Your task to perform on an android device: add a contact Image 0: 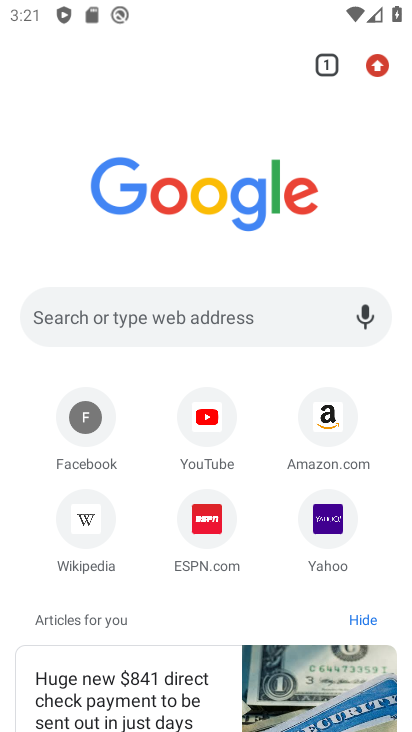
Step 0: press home button
Your task to perform on an android device: add a contact Image 1: 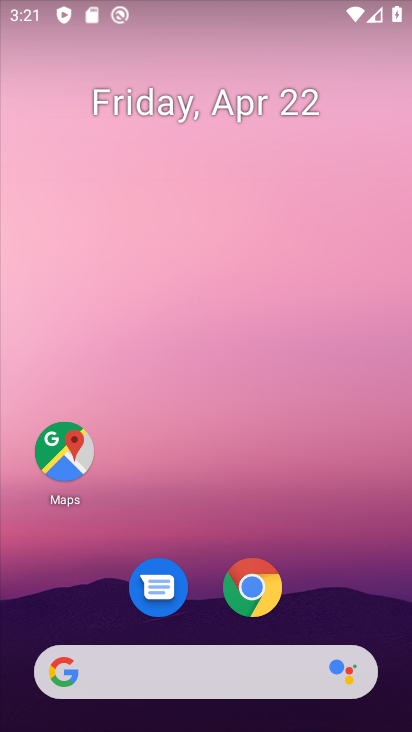
Step 1: drag from (344, 610) to (361, 23)
Your task to perform on an android device: add a contact Image 2: 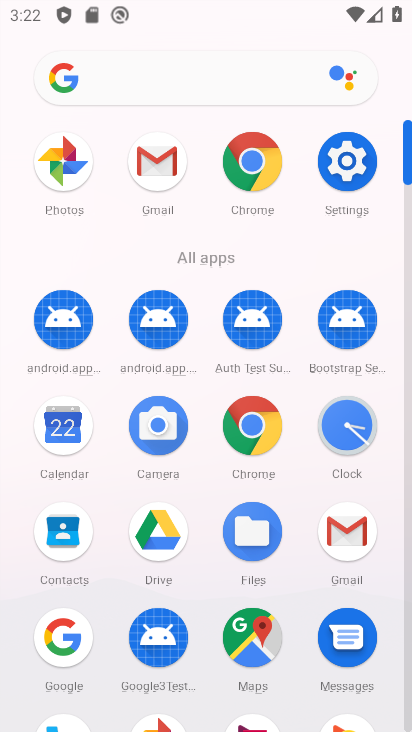
Step 2: click (60, 526)
Your task to perform on an android device: add a contact Image 3: 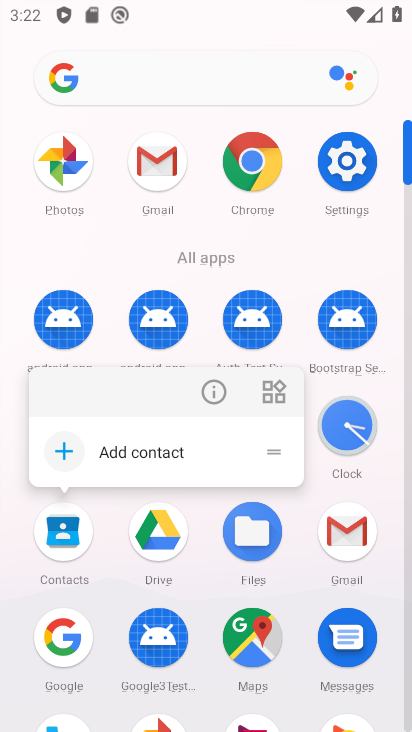
Step 3: click (72, 539)
Your task to perform on an android device: add a contact Image 4: 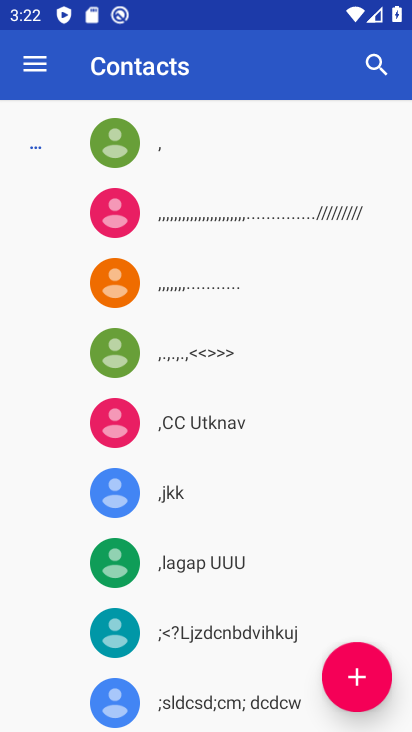
Step 4: click (354, 683)
Your task to perform on an android device: add a contact Image 5: 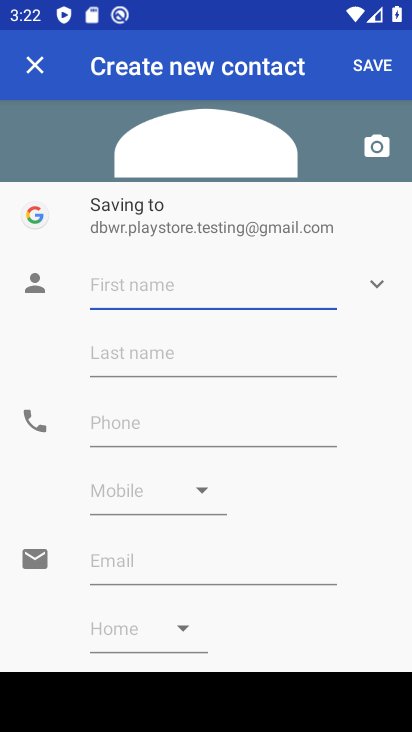
Step 5: click (130, 295)
Your task to perform on an android device: add a contact Image 6: 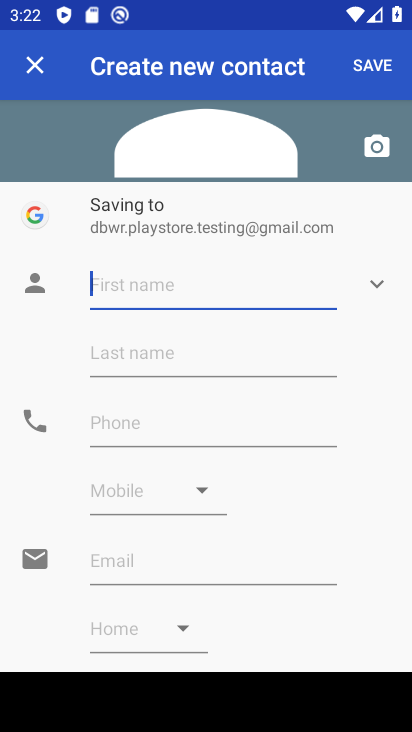
Step 6: type "dubey"
Your task to perform on an android device: add a contact Image 7: 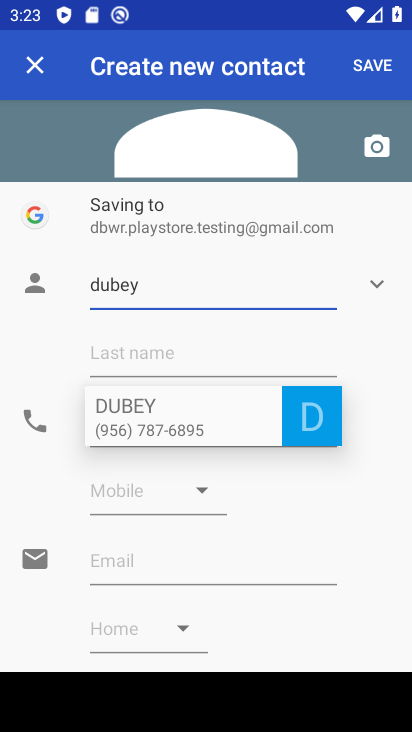
Step 7: click (403, 444)
Your task to perform on an android device: add a contact Image 8: 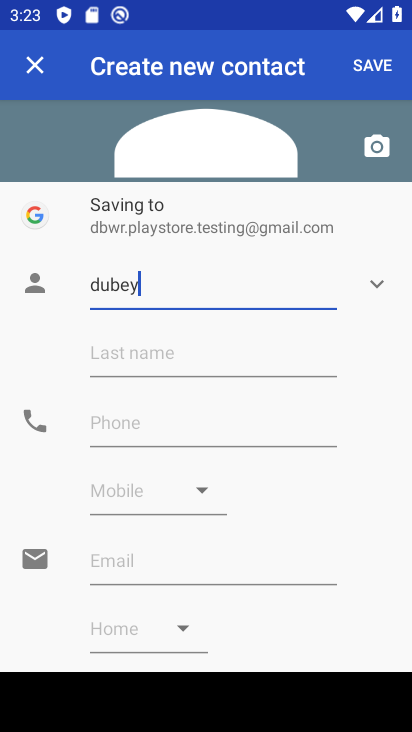
Step 8: click (147, 430)
Your task to perform on an android device: add a contact Image 9: 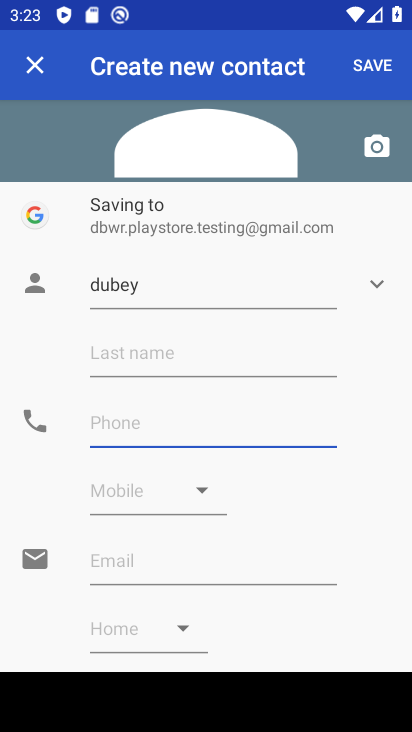
Step 9: type "9876543211"
Your task to perform on an android device: add a contact Image 10: 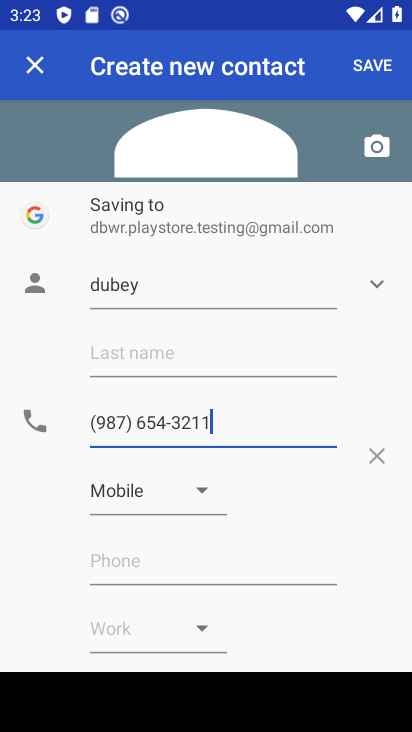
Step 10: click (363, 65)
Your task to perform on an android device: add a contact Image 11: 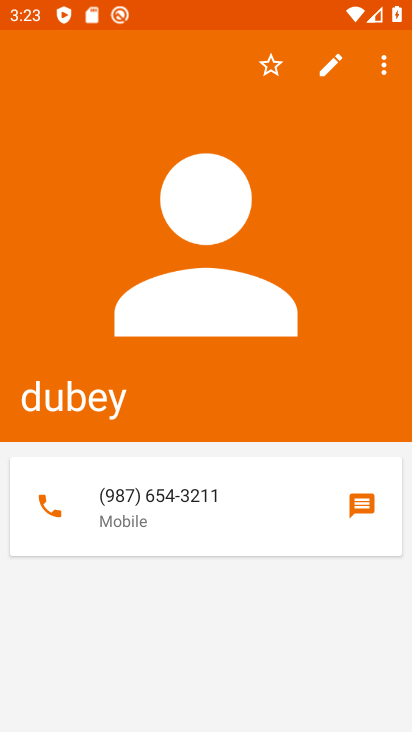
Step 11: task complete